Your task to perform on an android device: Open Google Chrome Image 0: 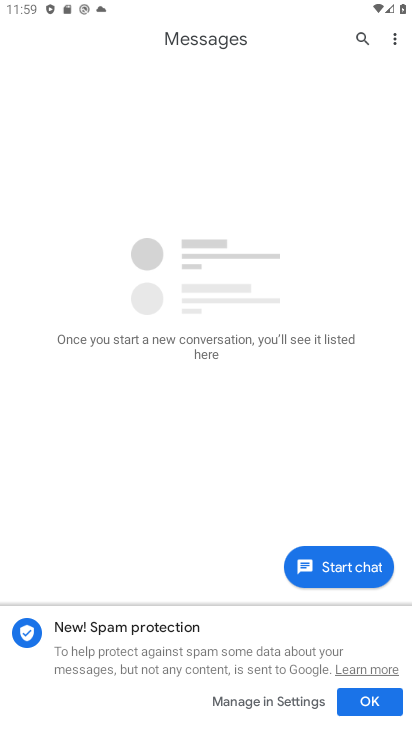
Step 0: press home button
Your task to perform on an android device: Open Google Chrome Image 1: 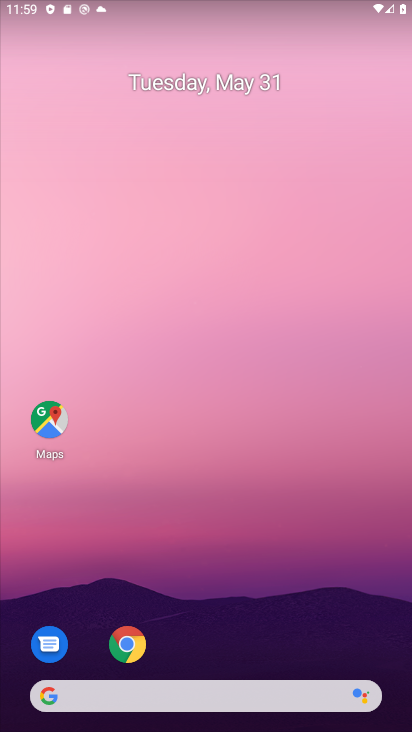
Step 1: drag from (355, 563) to (255, 117)
Your task to perform on an android device: Open Google Chrome Image 2: 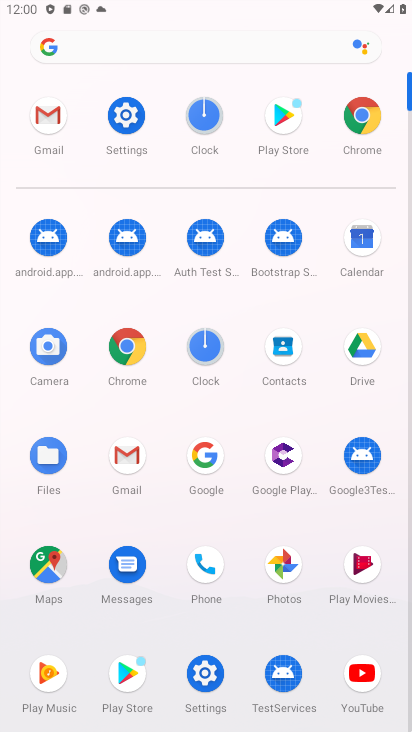
Step 2: click (129, 363)
Your task to perform on an android device: Open Google Chrome Image 3: 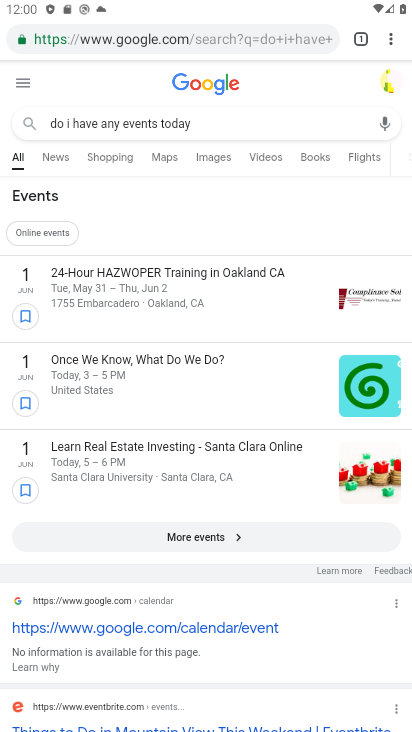
Step 3: task complete